Your task to perform on an android device: Open my contact list Image 0: 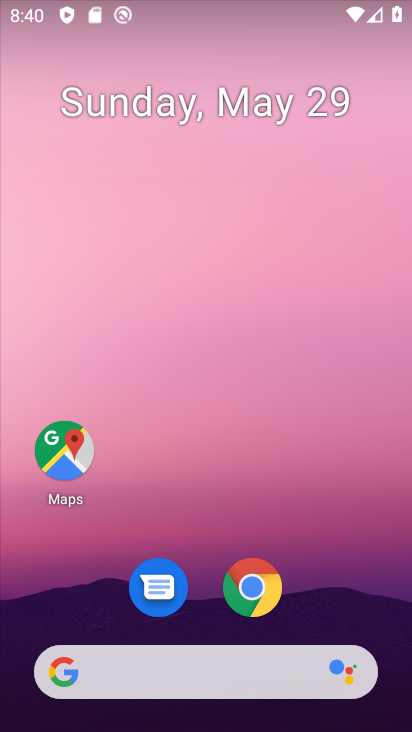
Step 0: drag from (200, 543) to (307, 31)
Your task to perform on an android device: Open my contact list Image 1: 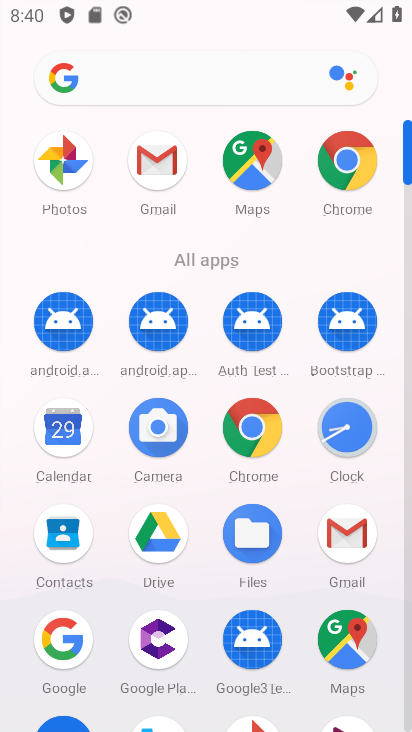
Step 1: click (79, 551)
Your task to perform on an android device: Open my contact list Image 2: 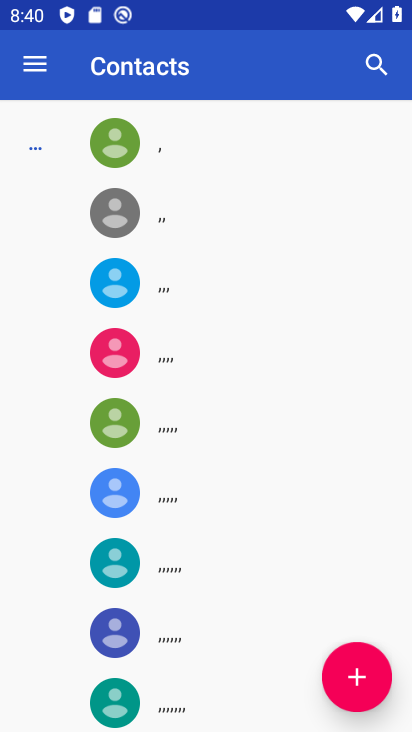
Step 2: task complete